Your task to perform on an android device: toggle airplane mode Image 0: 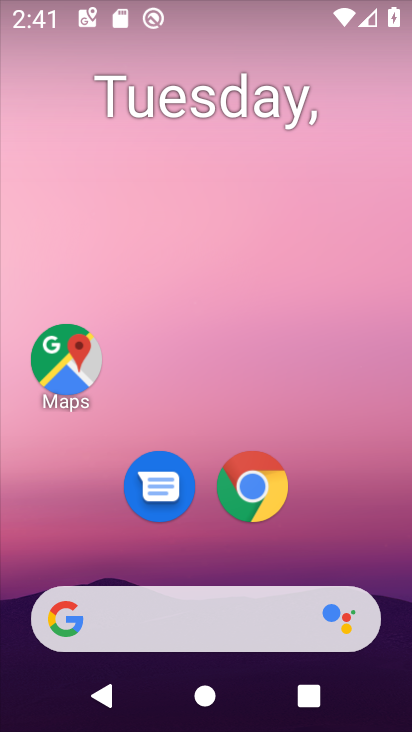
Step 0: press home button
Your task to perform on an android device: toggle airplane mode Image 1: 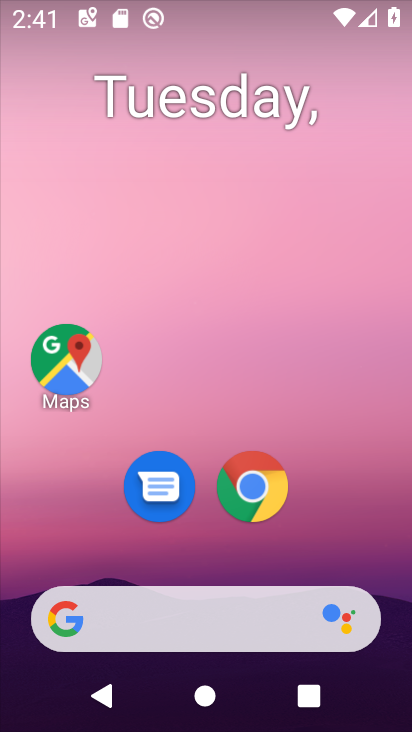
Step 1: drag from (226, 6) to (203, 567)
Your task to perform on an android device: toggle airplane mode Image 2: 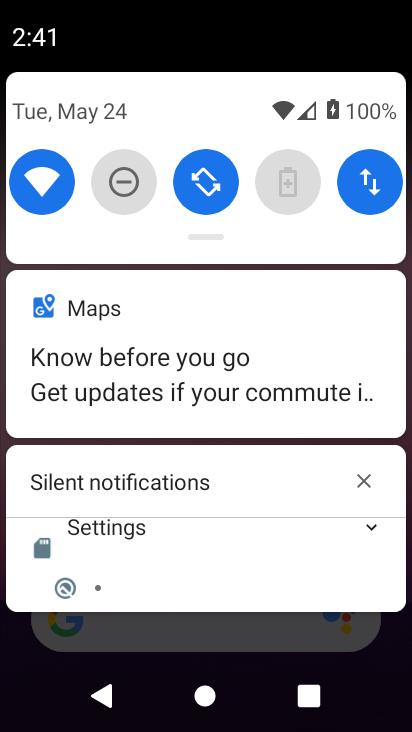
Step 2: drag from (239, 230) to (322, 648)
Your task to perform on an android device: toggle airplane mode Image 3: 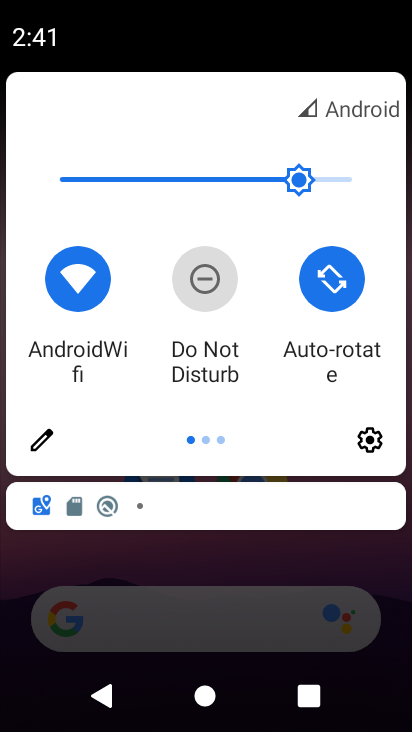
Step 3: drag from (363, 305) to (3, 324)
Your task to perform on an android device: toggle airplane mode Image 4: 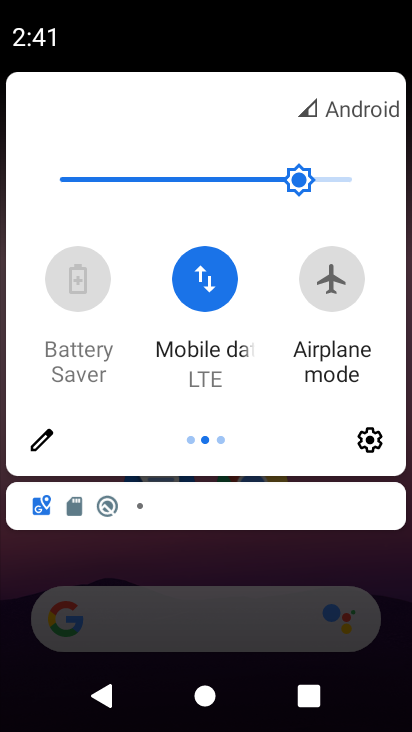
Step 4: click (328, 275)
Your task to perform on an android device: toggle airplane mode Image 5: 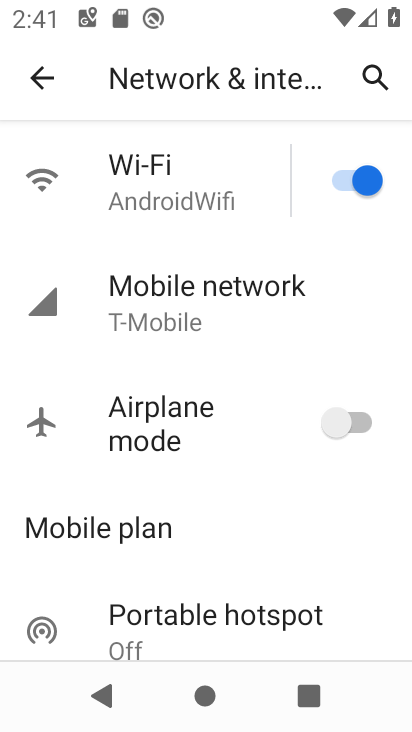
Step 5: click (357, 415)
Your task to perform on an android device: toggle airplane mode Image 6: 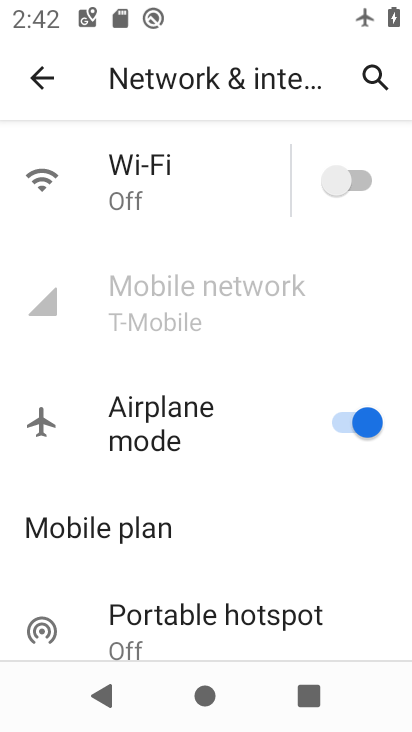
Step 6: task complete